Your task to perform on an android device: change keyboard looks Image 0: 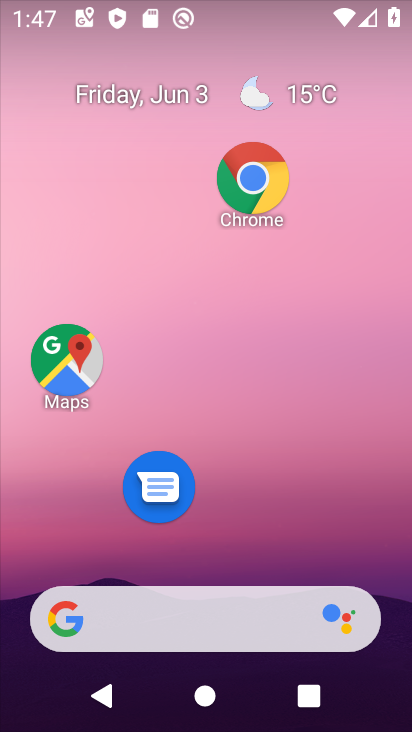
Step 0: drag from (222, 559) to (220, 98)
Your task to perform on an android device: change keyboard looks Image 1: 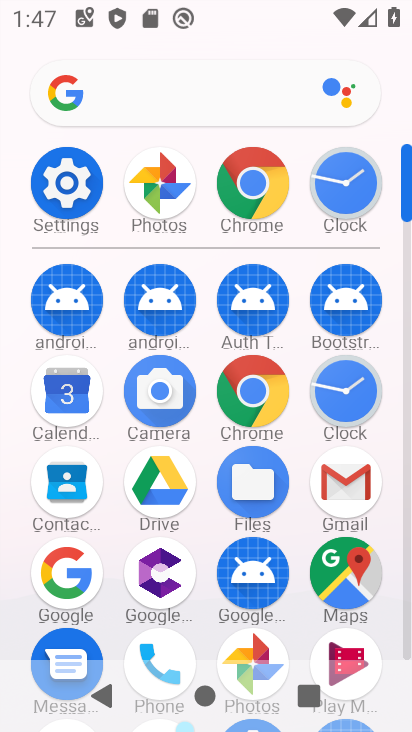
Step 1: click (63, 177)
Your task to perform on an android device: change keyboard looks Image 2: 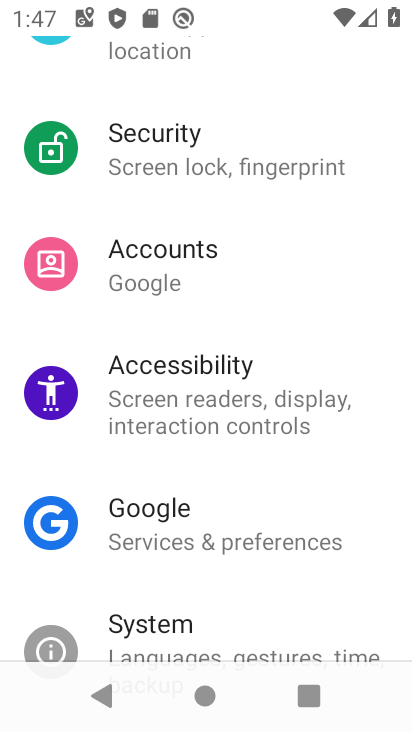
Step 2: click (204, 627)
Your task to perform on an android device: change keyboard looks Image 3: 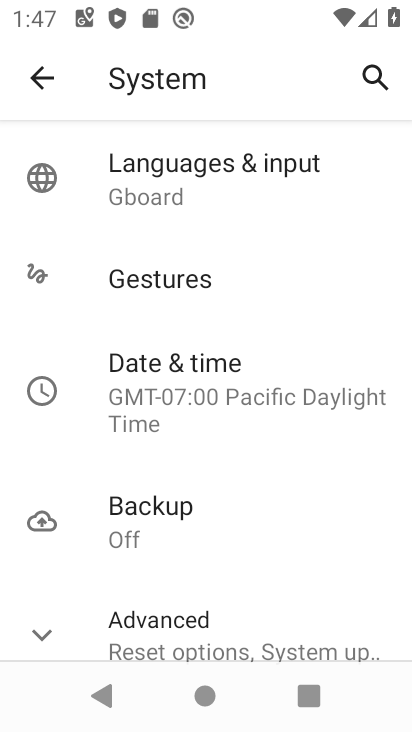
Step 3: click (114, 195)
Your task to perform on an android device: change keyboard looks Image 4: 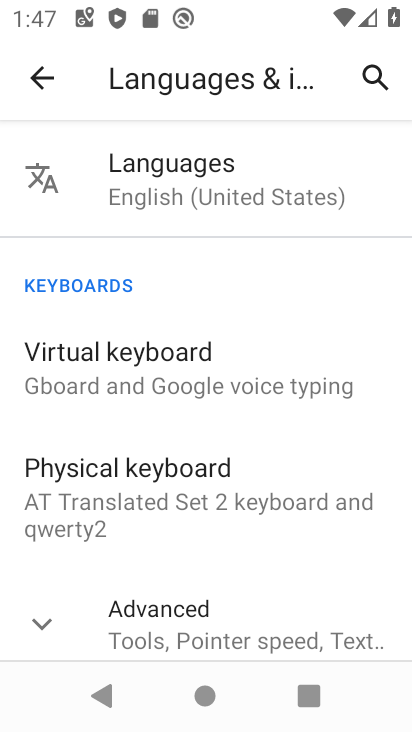
Step 4: click (236, 362)
Your task to perform on an android device: change keyboard looks Image 5: 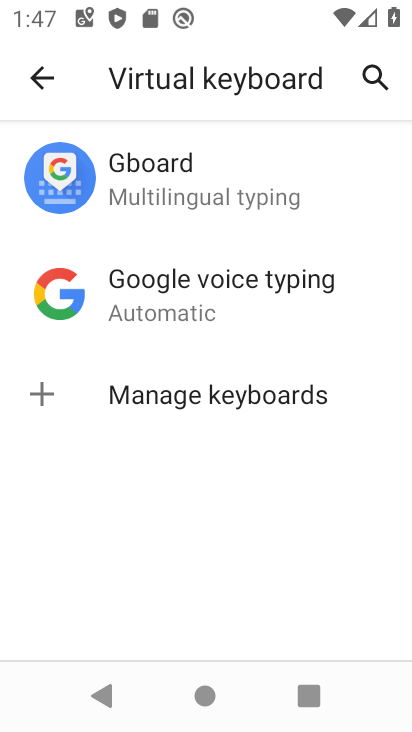
Step 5: click (159, 179)
Your task to perform on an android device: change keyboard looks Image 6: 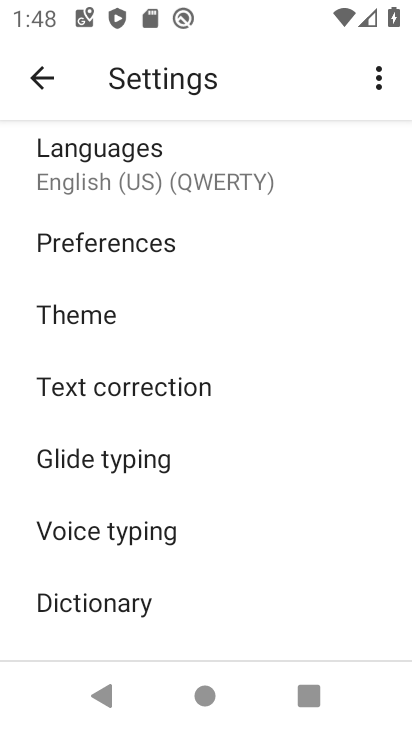
Step 6: click (131, 309)
Your task to perform on an android device: change keyboard looks Image 7: 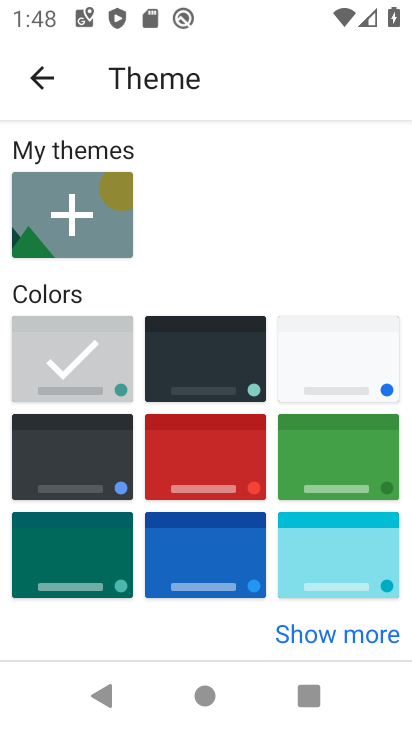
Step 7: click (335, 450)
Your task to perform on an android device: change keyboard looks Image 8: 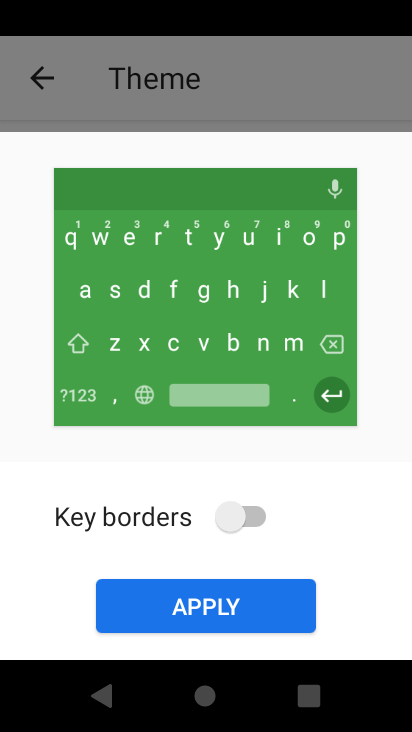
Step 8: click (204, 603)
Your task to perform on an android device: change keyboard looks Image 9: 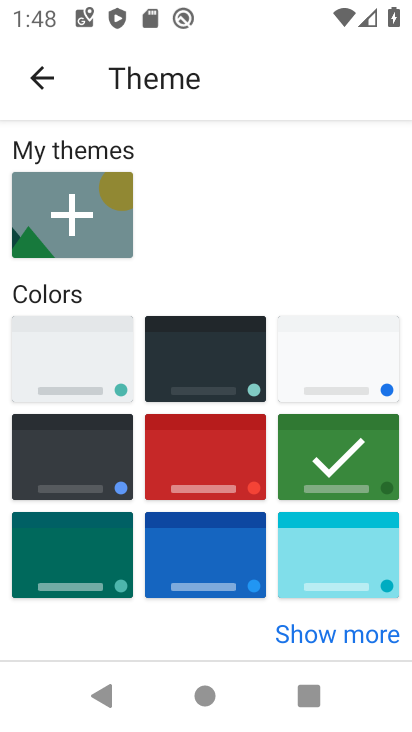
Step 9: task complete